Your task to perform on an android device: Open the map Image 0: 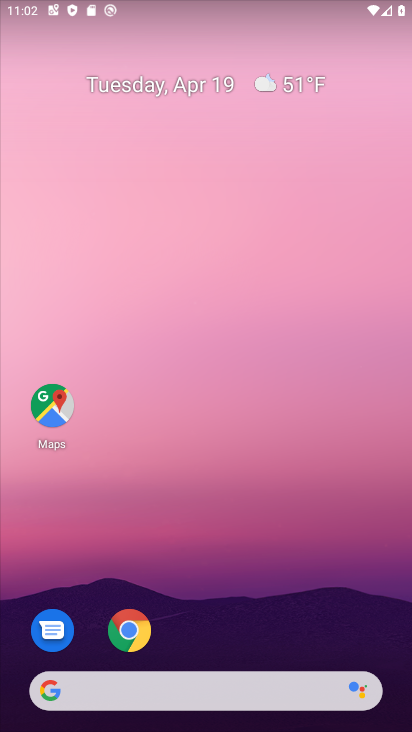
Step 0: drag from (367, 528) to (251, 164)
Your task to perform on an android device: Open the map Image 1: 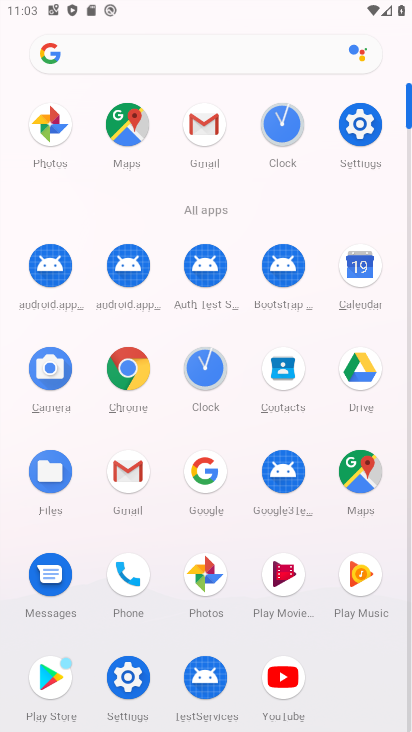
Step 1: click (118, 126)
Your task to perform on an android device: Open the map Image 2: 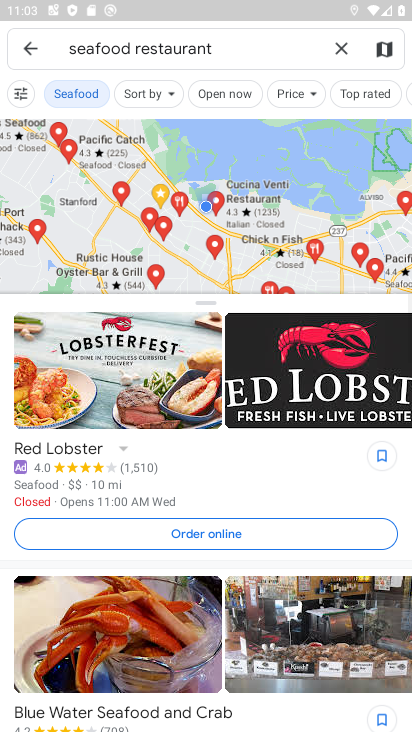
Step 2: task complete